Your task to perform on an android device: Open settings Image 0: 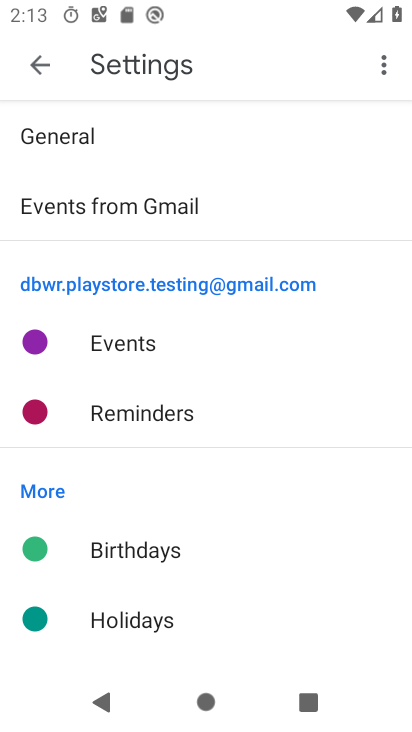
Step 0: drag from (237, 585) to (268, 232)
Your task to perform on an android device: Open settings Image 1: 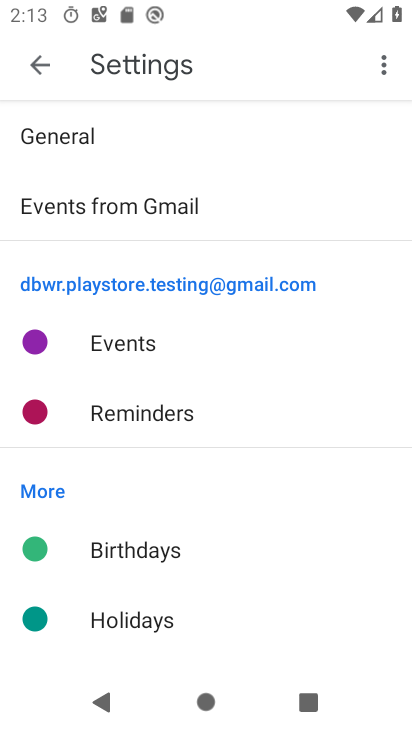
Step 1: press home button
Your task to perform on an android device: Open settings Image 2: 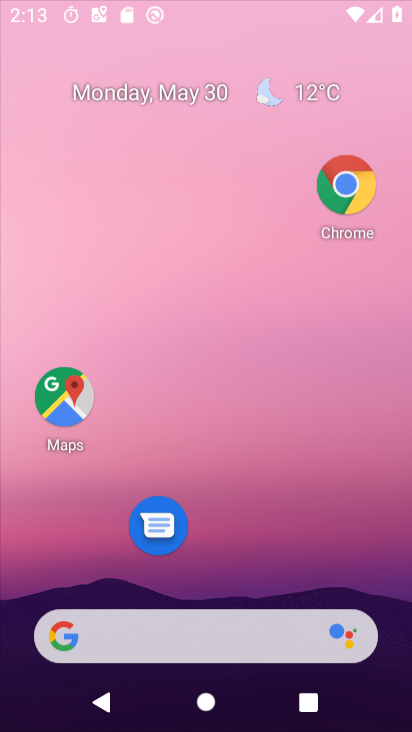
Step 2: drag from (254, 557) to (285, 156)
Your task to perform on an android device: Open settings Image 3: 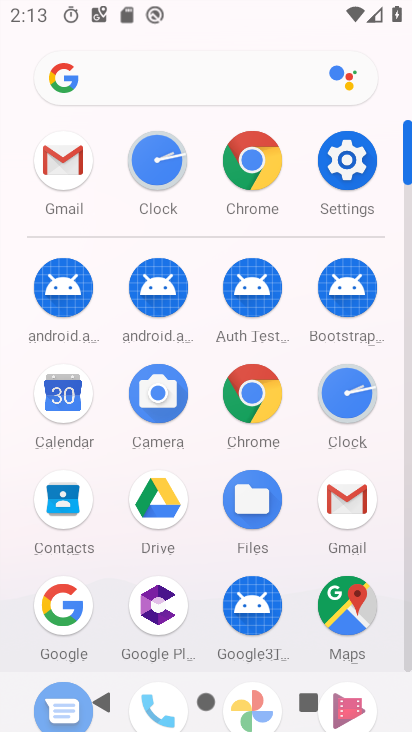
Step 3: click (336, 151)
Your task to perform on an android device: Open settings Image 4: 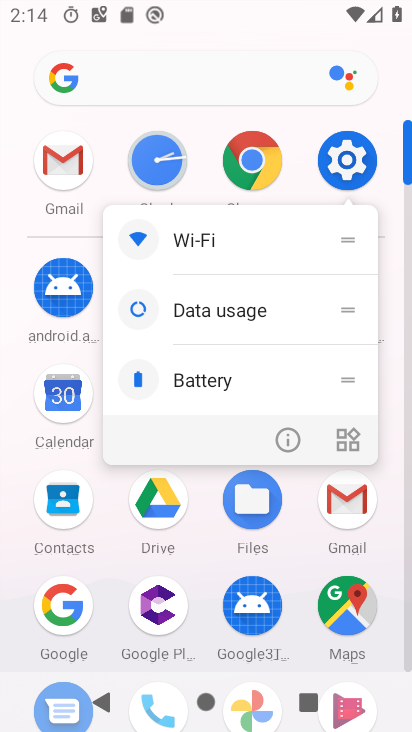
Step 4: click (296, 434)
Your task to perform on an android device: Open settings Image 5: 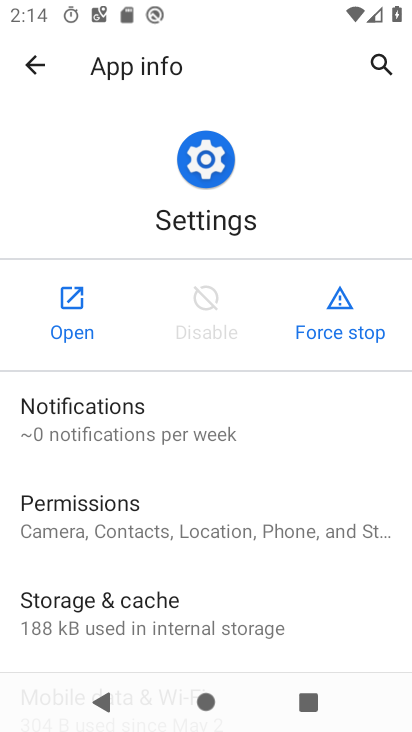
Step 5: click (74, 308)
Your task to perform on an android device: Open settings Image 6: 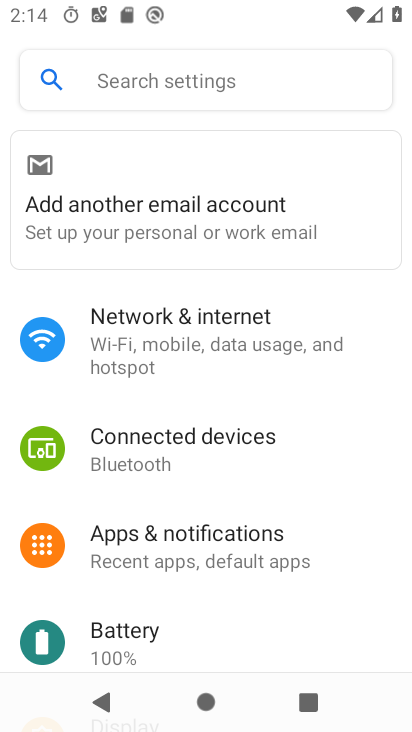
Step 6: task complete